Your task to perform on an android device: change text size in settings app Image 0: 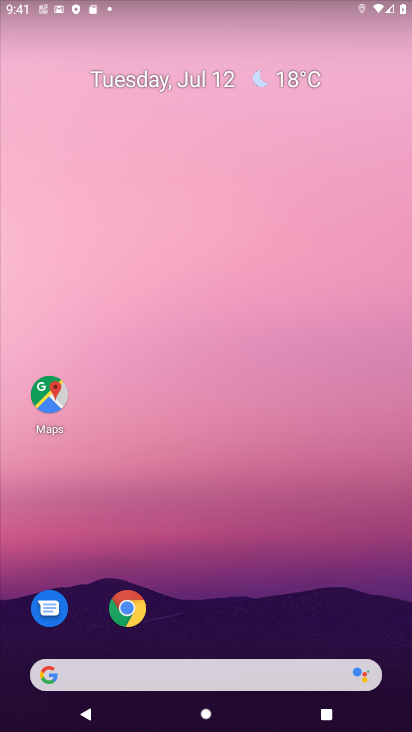
Step 0: drag from (251, 565) to (211, 150)
Your task to perform on an android device: change text size in settings app Image 1: 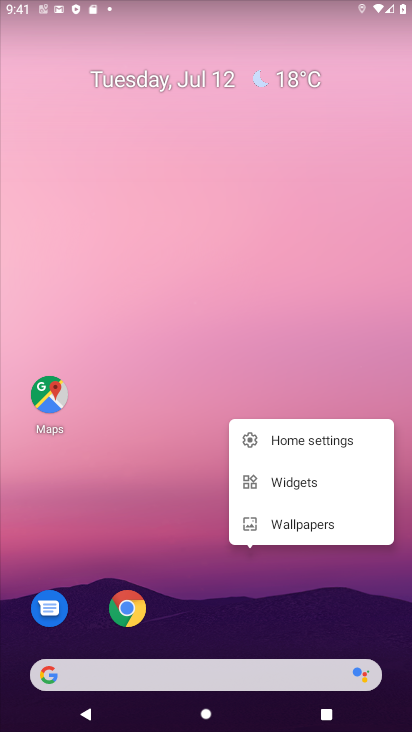
Step 1: click (153, 481)
Your task to perform on an android device: change text size in settings app Image 2: 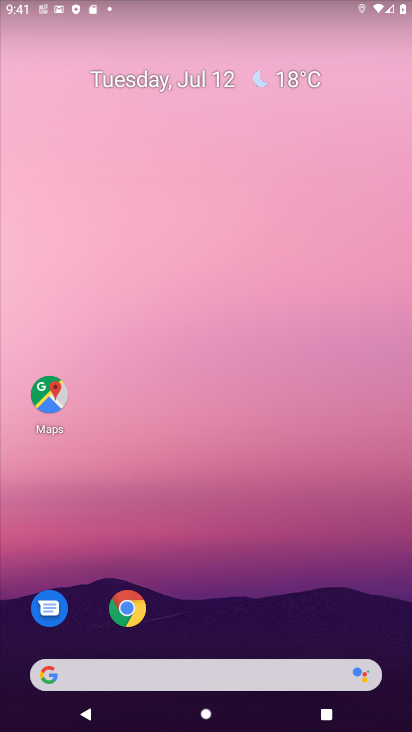
Step 2: drag from (221, 585) to (232, 198)
Your task to perform on an android device: change text size in settings app Image 3: 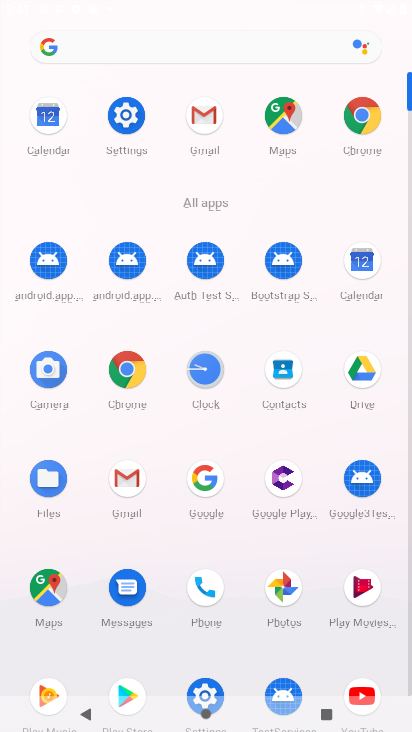
Step 3: click (127, 115)
Your task to perform on an android device: change text size in settings app Image 4: 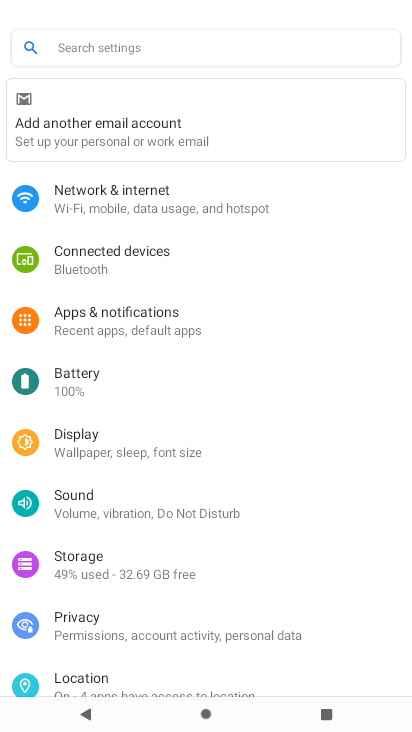
Step 4: click (70, 428)
Your task to perform on an android device: change text size in settings app Image 5: 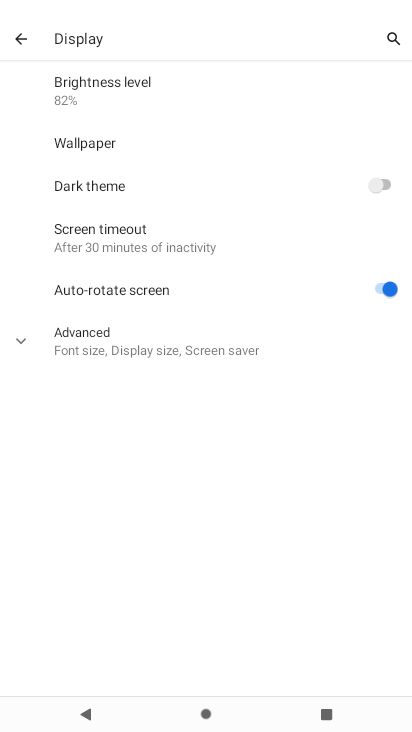
Step 5: click (77, 341)
Your task to perform on an android device: change text size in settings app Image 6: 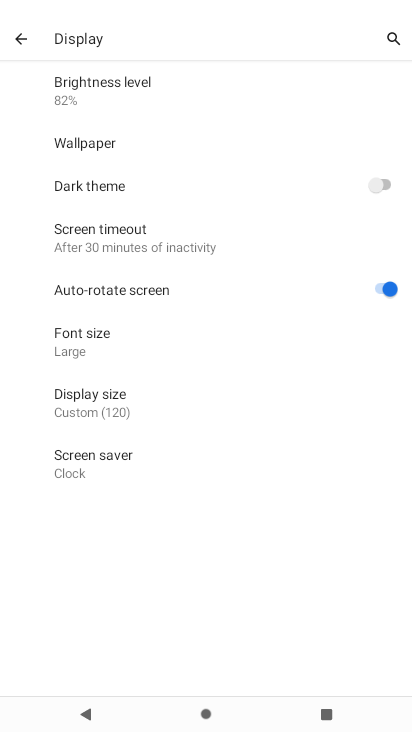
Step 6: click (72, 338)
Your task to perform on an android device: change text size in settings app Image 7: 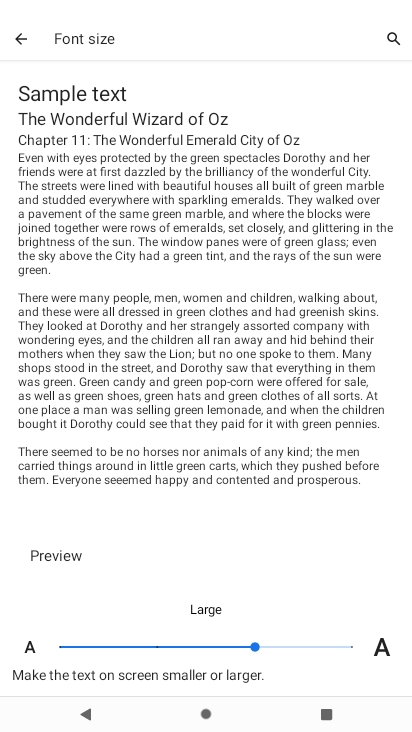
Step 7: click (192, 639)
Your task to perform on an android device: change text size in settings app Image 8: 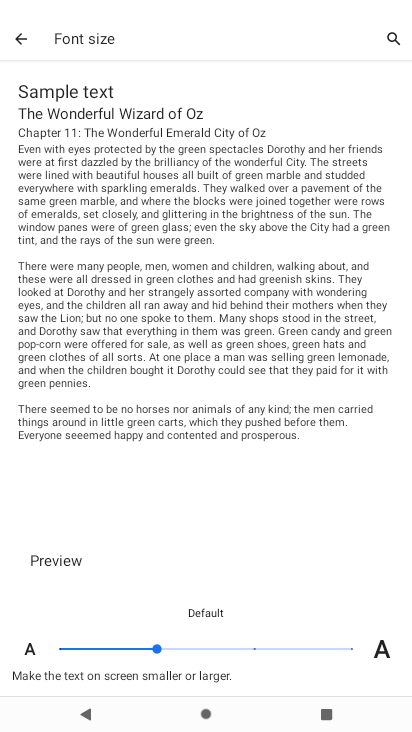
Step 8: task complete